Your task to perform on an android device: Clear all items from cart on amazon.com. Add lenovo thinkpad to the cart on amazon.com, then select checkout. Image 0: 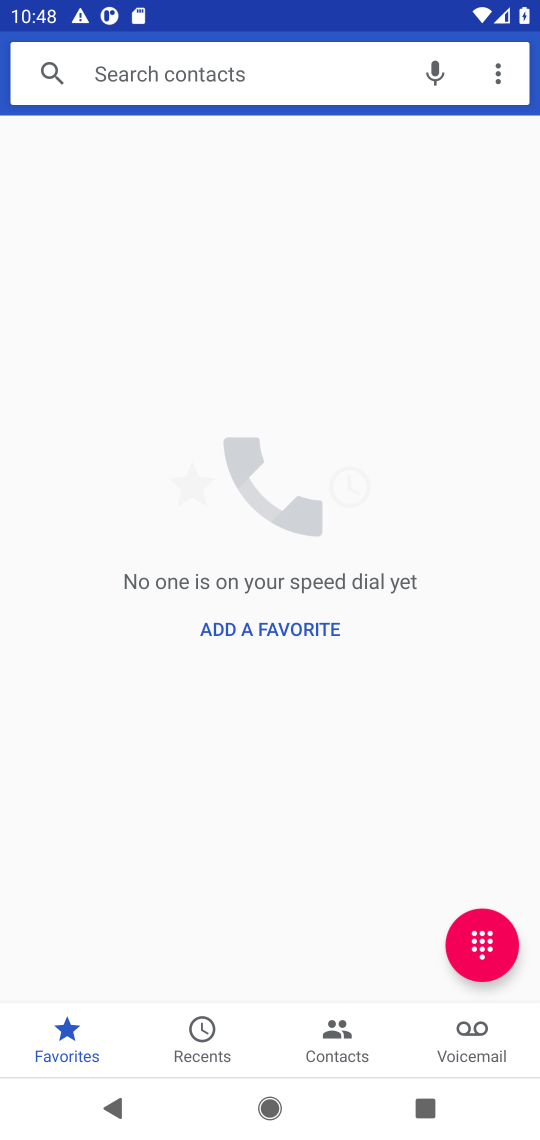
Step 0: press home button
Your task to perform on an android device: Clear all items from cart on amazon.com. Add lenovo thinkpad to the cart on amazon.com, then select checkout. Image 1: 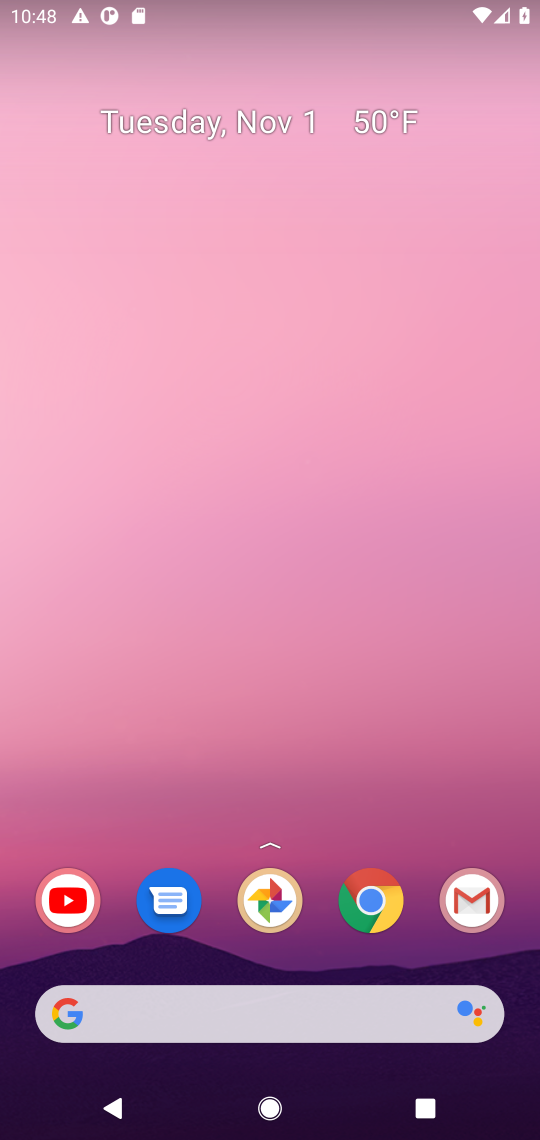
Step 1: click (356, 914)
Your task to perform on an android device: Clear all items from cart on amazon.com. Add lenovo thinkpad to the cart on amazon.com, then select checkout. Image 2: 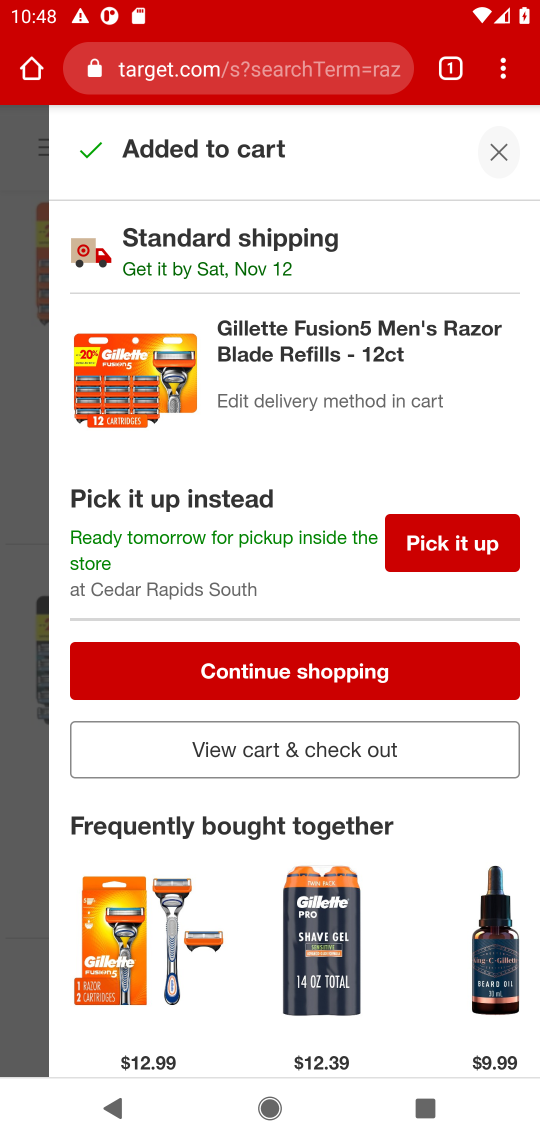
Step 2: click (246, 82)
Your task to perform on an android device: Clear all items from cart on amazon.com. Add lenovo thinkpad to the cart on amazon.com, then select checkout. Image 3: 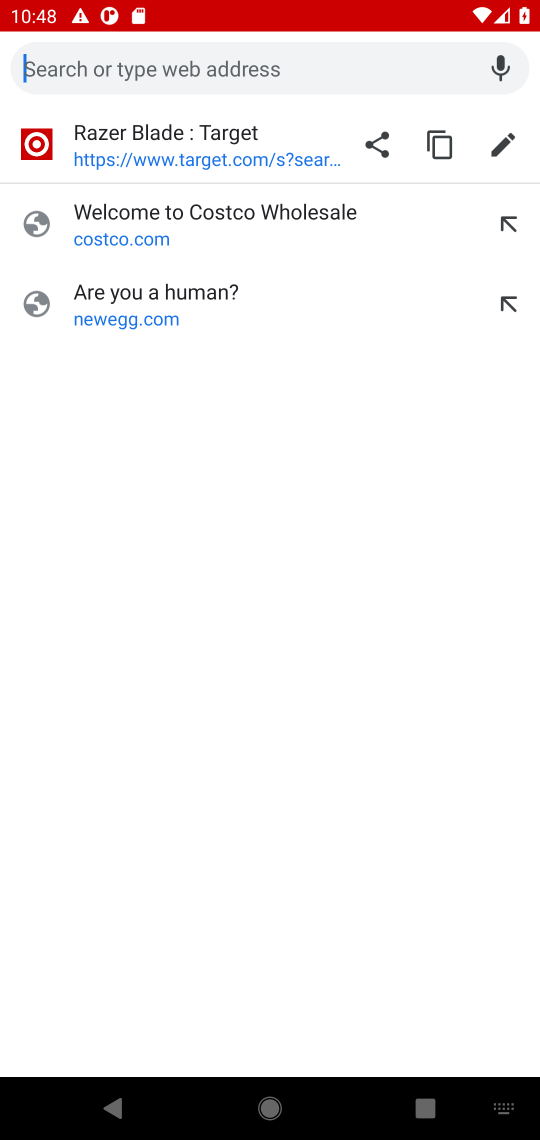
Step 3: type "amazon"
Your task to perform on an android device: Clear all items from cart on amazon.com. Add lenovo thinkpad to the cart on amazon.com, then select checkout. Image 4: 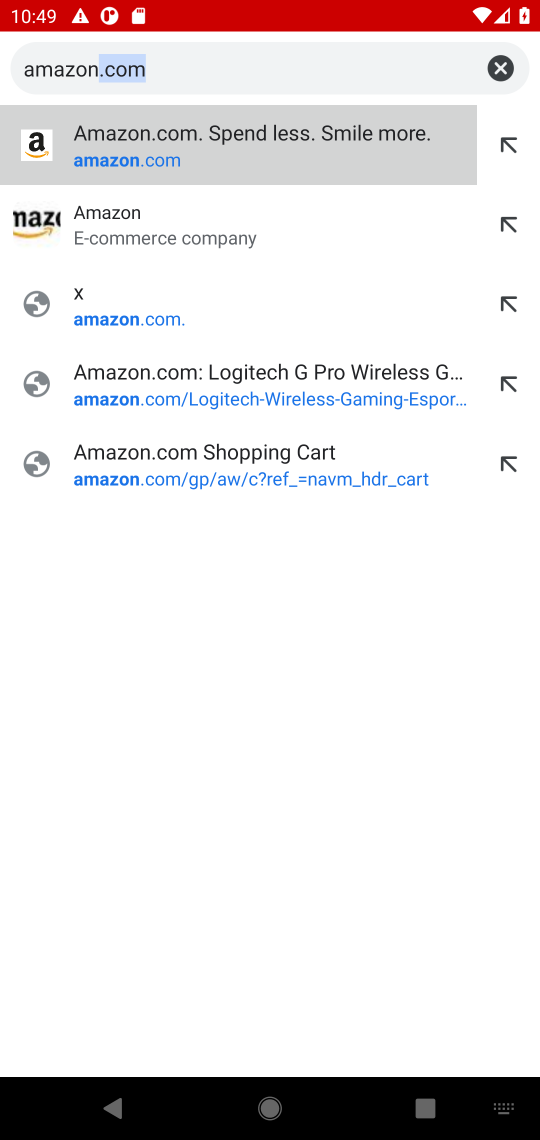
Step 4: click (96, 253)
Your task to perform on an android device: Clear all items from cart on amazon.com. Add lenovo thinkpad to the cart on amazon.com, then select checkout. Image 5: 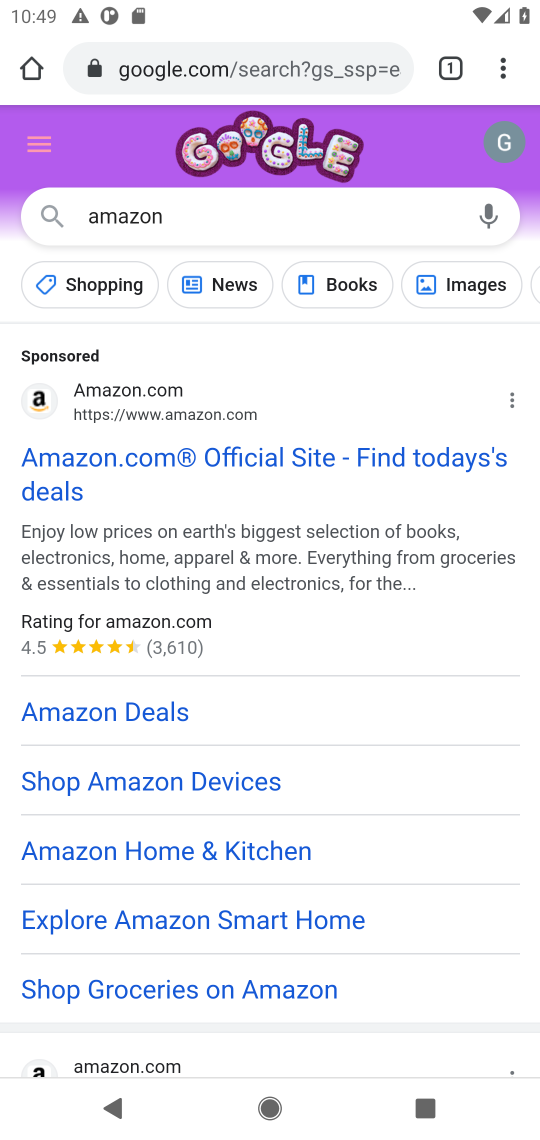
Step 5: click (28, 499)
Your task to perform on an android device: Clear all items from cart on amazon.com. Add lenovo thinkpad to the cart on amazon.com, then select checkout. Image 6: 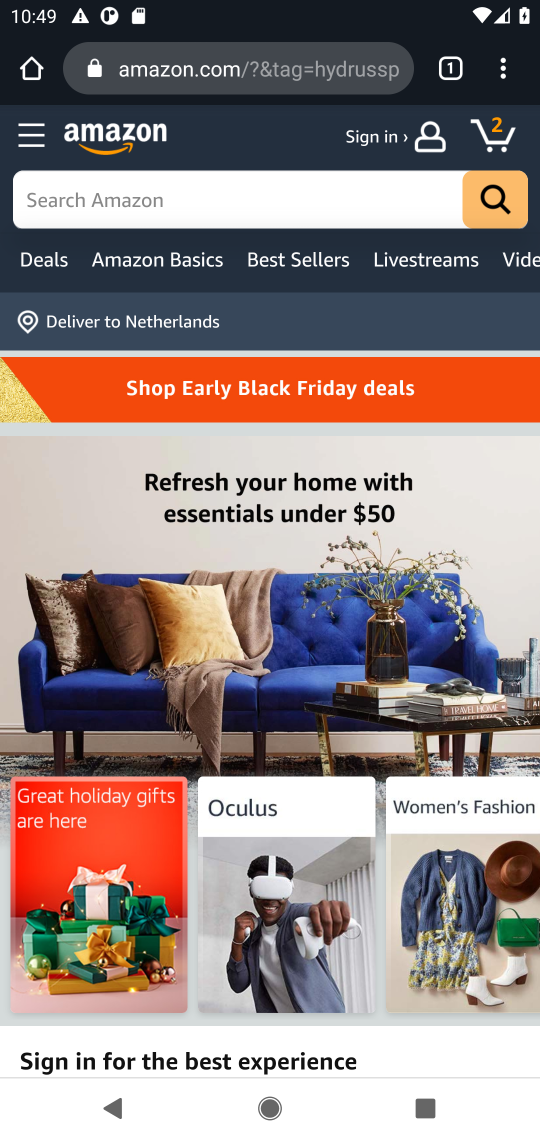
Step 6: click (508, 143)
Your task to perform on an android device: Clear all items from cart on amazon.com. Add lenovo thinkpad to the cart on amazon.com, then select checkout. Image 7: 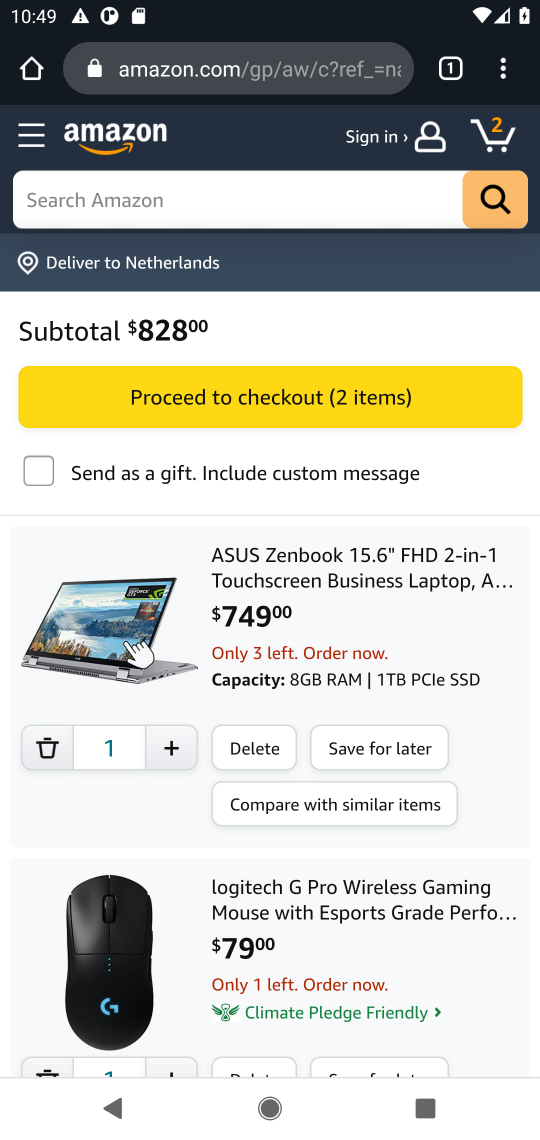
Step 7: click (256, 740)
Your task to perform on an android device: Clear all items from cart on amazon.com. Add lenovo thinkpad to the cart on amazon.com, then select checkout. Image 8: 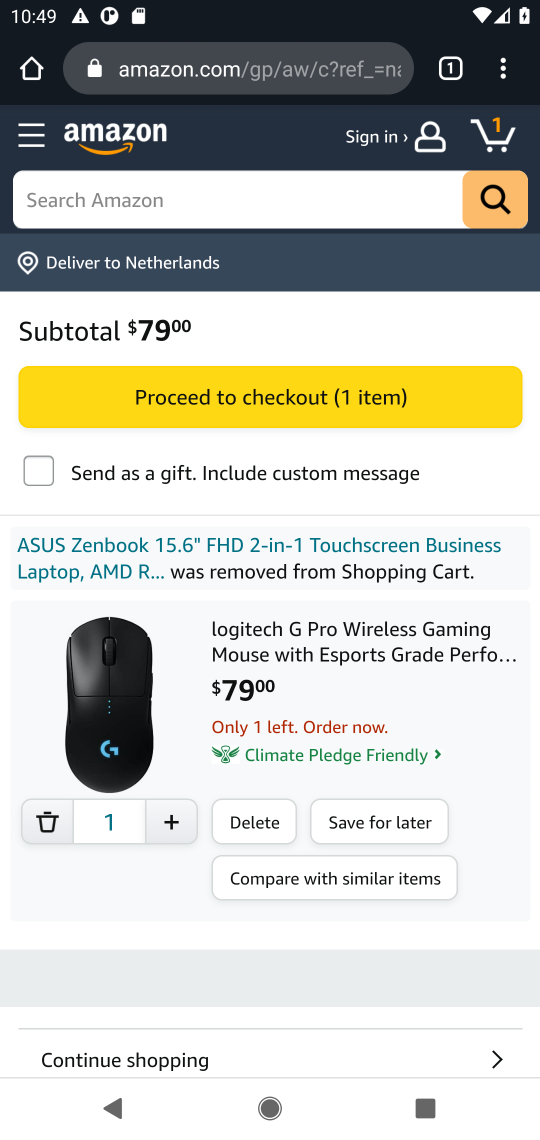
Step 8: click (241, 821)
Your task to perform on an android device: Clear all items from cart on amazon.com. Add lenovo thinkpad to the cart on amazon.com, then select checkout. Image 9: 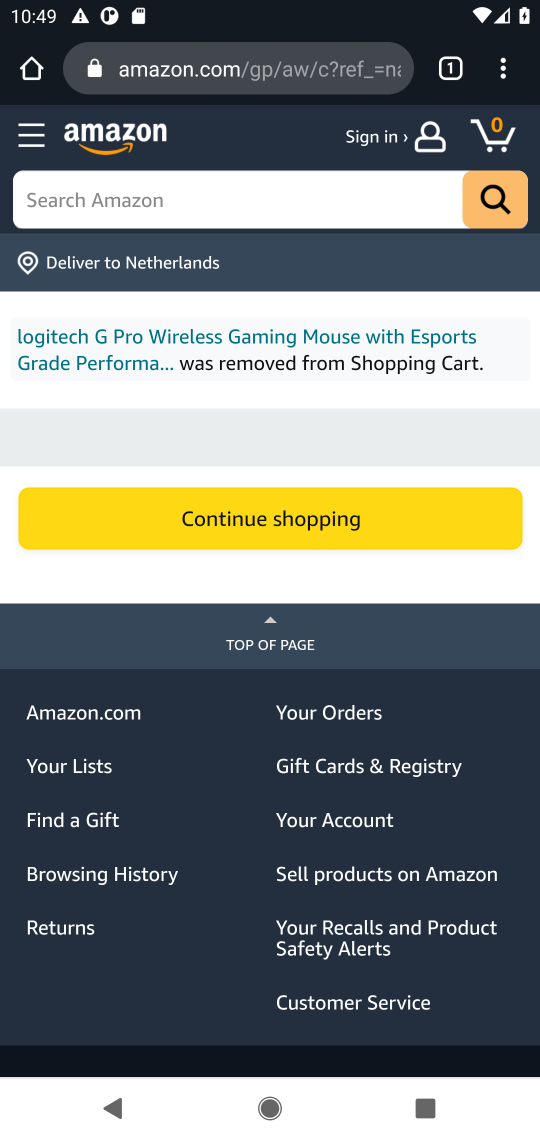
Step 9: click (96, 211)
Your task to perform on an android device: Clear all items from cart on amazon.com. Add lenovo thinkpad to the cart on amazon.com, then select checkout. Image 10: 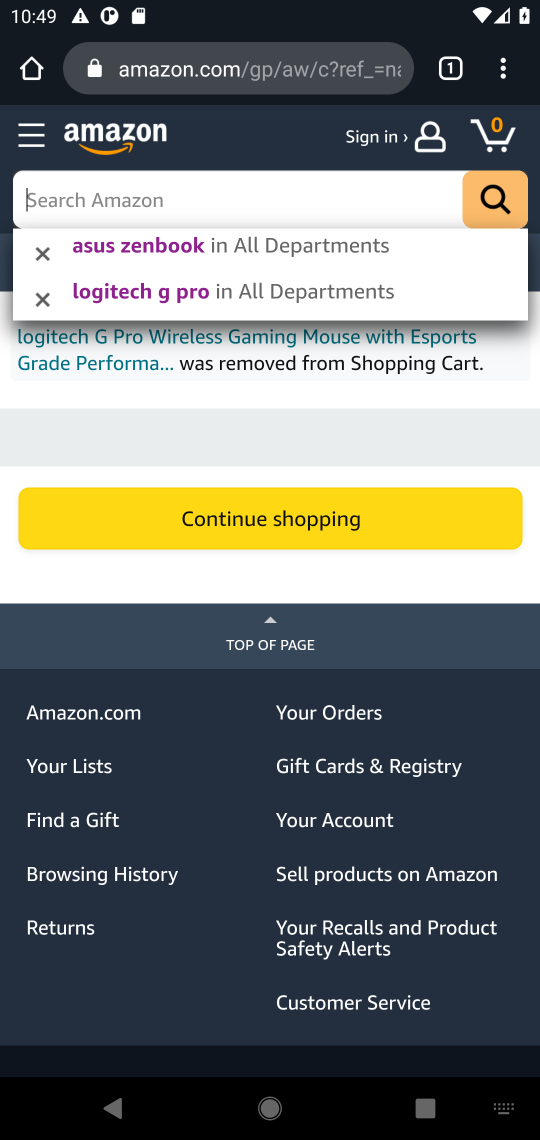
Step 10: type "lenovo thinkpad"
Your task to perform on an android device: Clear all items from cart on amazon.com. Add lenovo thinkpad to the cart on amazon.com, then select checkout. Image 11: 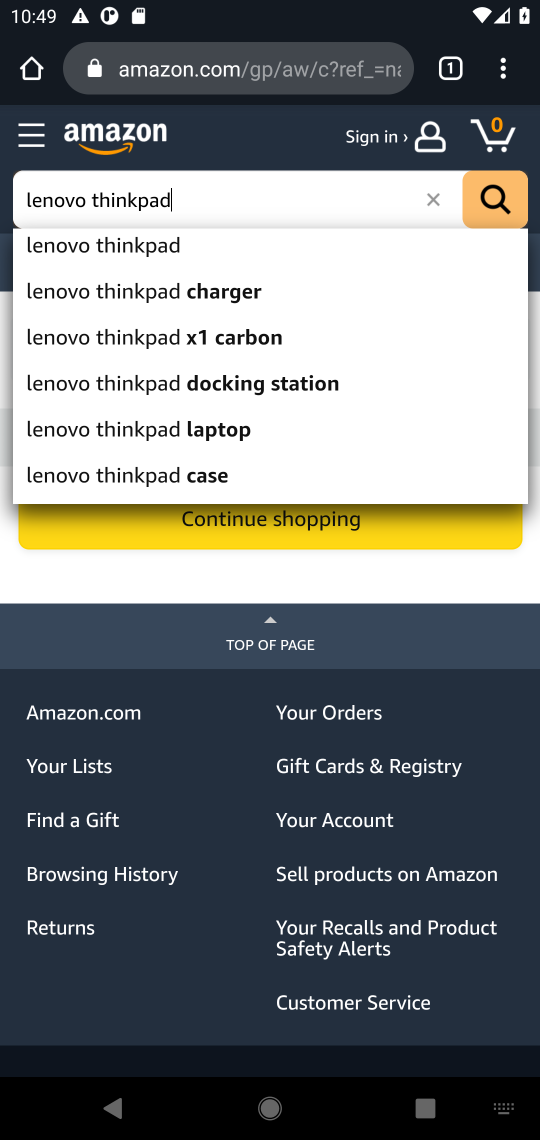
Step 11: click (477, 193)
Your task to perform on an android device: Clear all items from cart on amazon.com. Add lenovo thinkpad to the cart on amazon.com, then select checkout. Image 12: 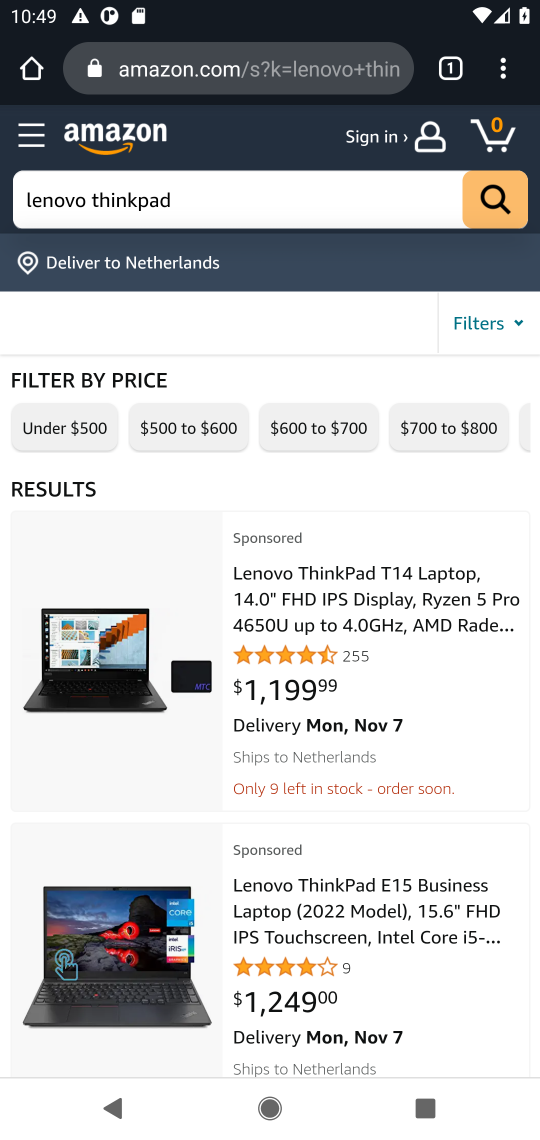
Step 12: click (384, 621)
Your task to perform on an android device: Clear all items from cart on amazon.com. Add lenovo thinkpad to the cart on amazon.com, then select checkout. Image 13: 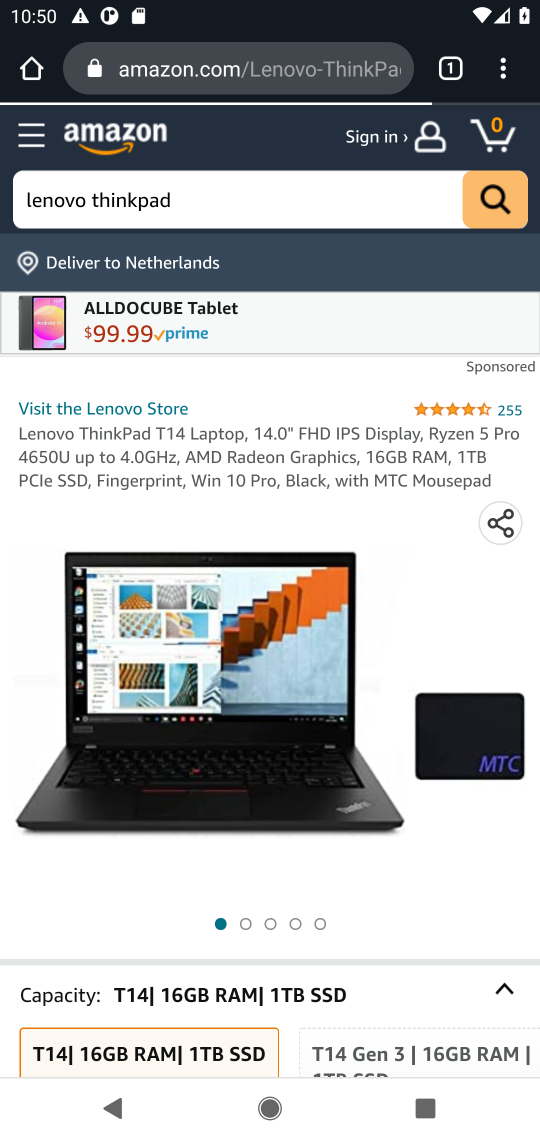
Step 13: drag from (256, 894) to (402, 315)
Your task to perform on an android device: Clear all items from cart on amazon.com. Add lenovo thinkpad to the cart on amazon.com, then select checkout. Image 14: 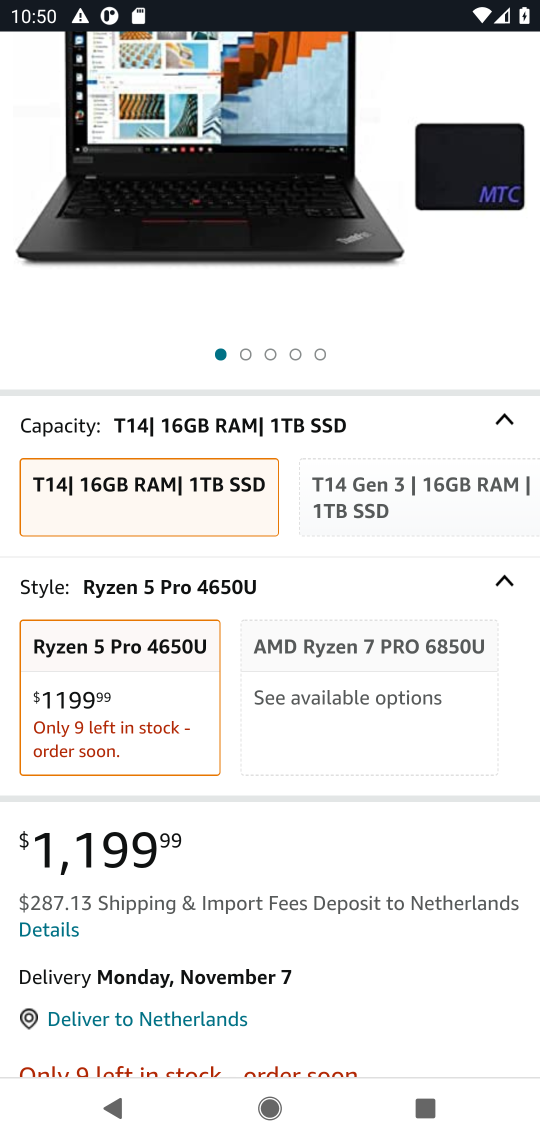
Step 14: drag from (305, 1002) to (339, 454)
Your task to perform on an android device: Clear all items from cart on amazon.com. Add lenovo thinkpad to the cart on amazon.com, then select checkout. Image 15: 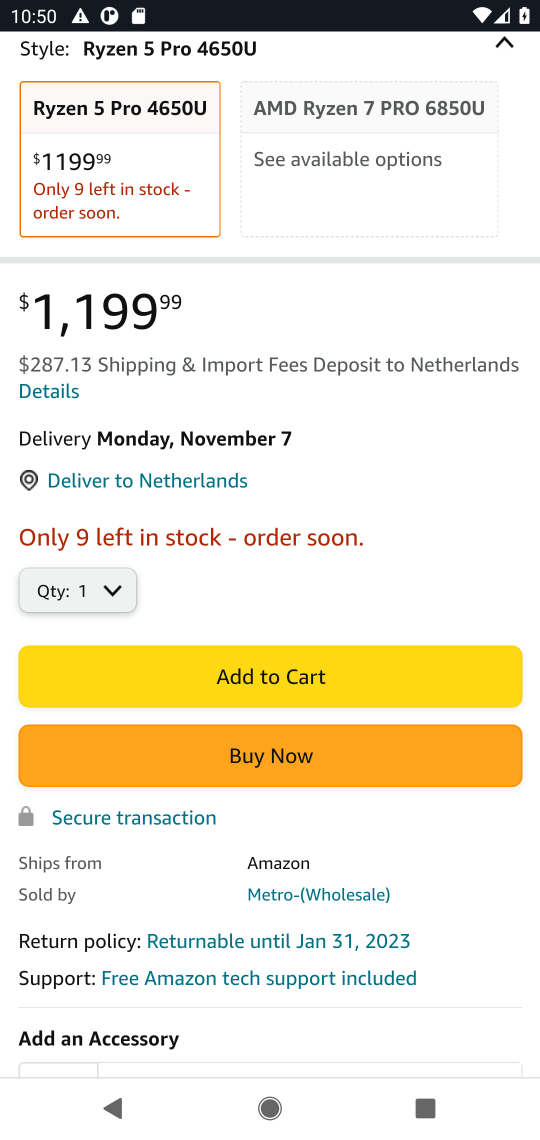
Step 15: click (211, 660)
Your task to perform on an android device: Clear all items from cart on amazon.com. Add lenovo thinkpad to the cart on amazon.com, then select checkout. Image 16: 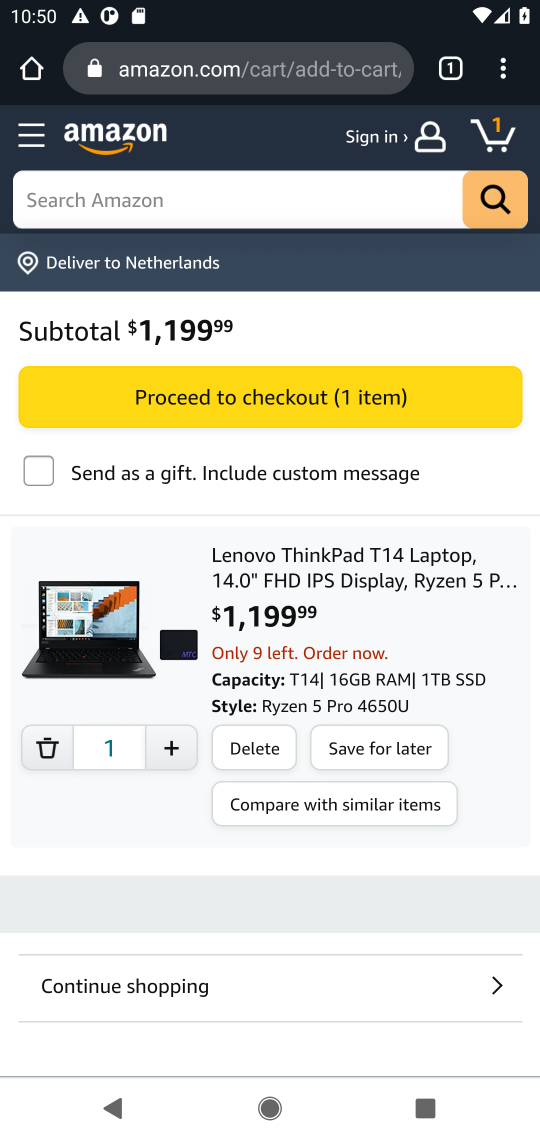
Step 16: click (295, 383)
Your task to perform on an android device: Clear all items from cart on amazon.com. Add lenovo thinkpad to the cart on amazon.com, then select checkout. Image 17: 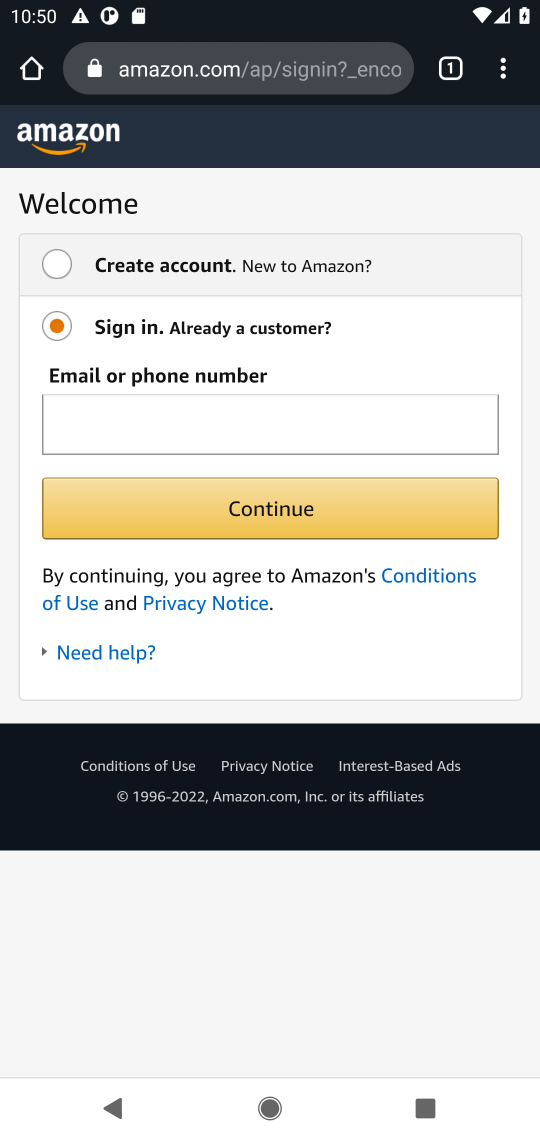
Step 17: task complete